Your task to perform on an android device: Open maps Image 0: 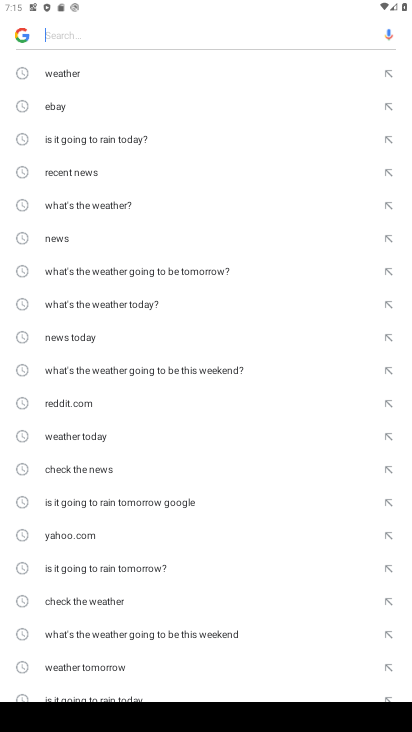
Step 0: press home button
Your task to perform on an android device: Open maps Image 1: 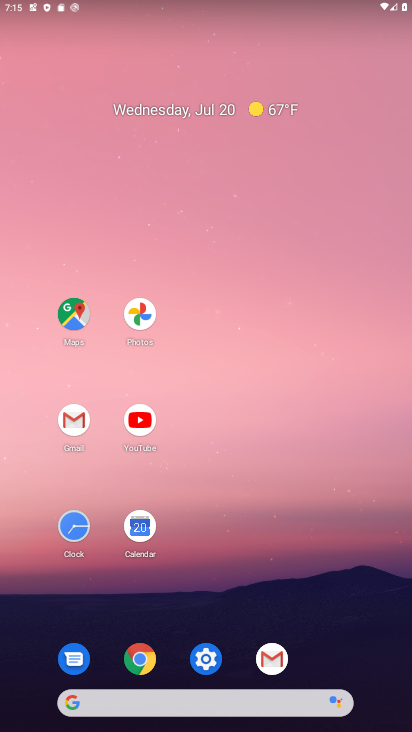
Step 1: click (70, 308)
Your task to perform on an android device: Open maps Image 2: 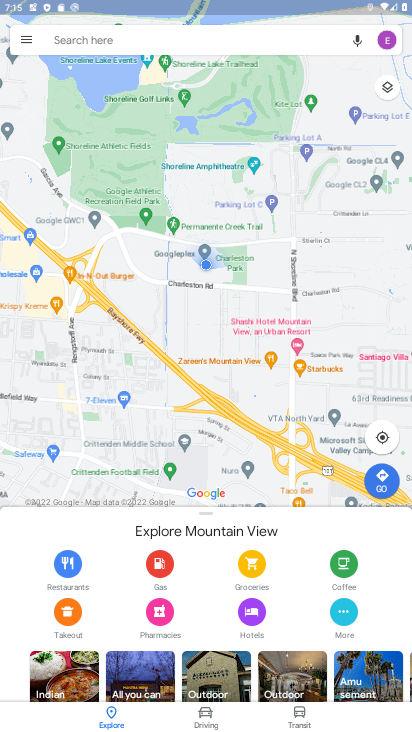
Step 2: task complete